Your task to perform on an android device: Go to eBay Image 0: 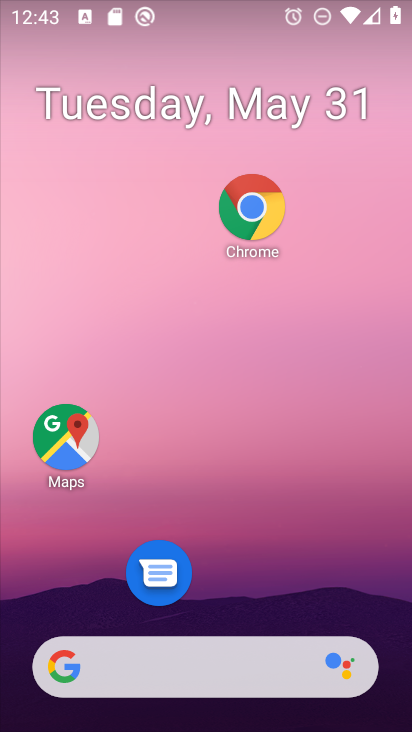
Step 0: drag from (199, 538) to (198, 0)
Your task to perform on an android device: Go to eBay Image 1: 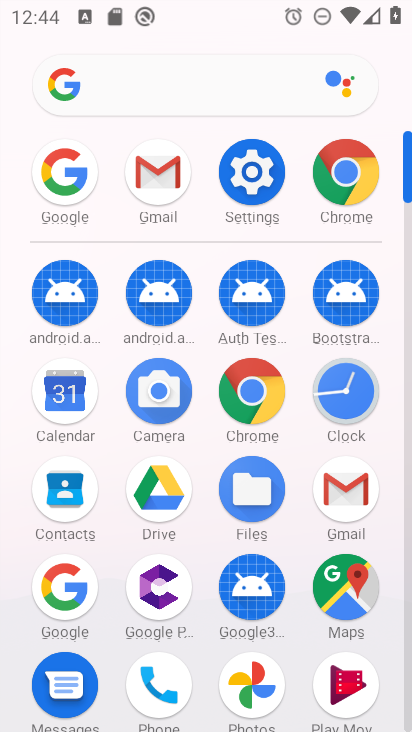
Step 1: click (264, 383)
Your task to perform on an android device: Go to eBay Image 2: 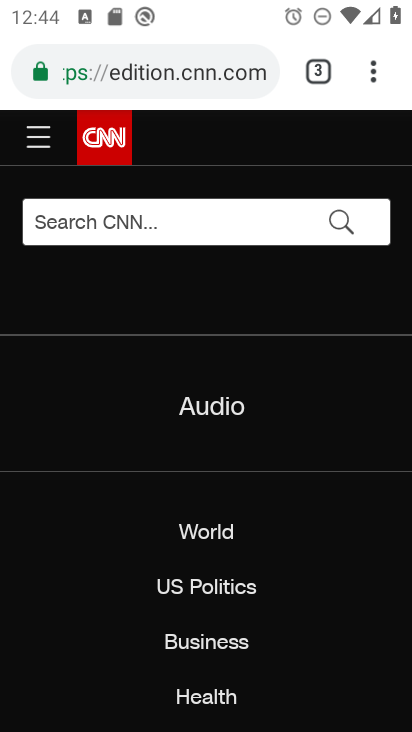
Step 2: click (201, 94)
Your task to perform on an android device: Go to eBay Image 3: 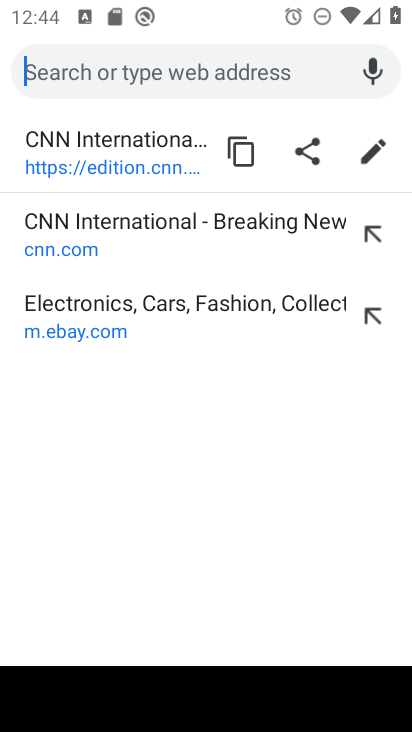
Step 3: type "ebay"
Your task to perform on an android device: Go to eBay Image 4: 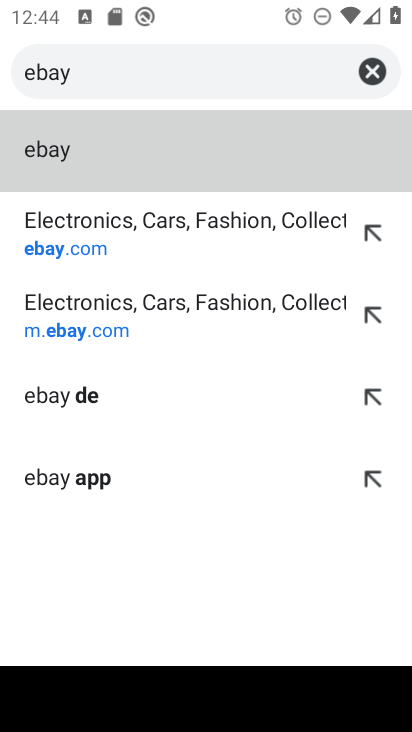
Step 4: click (188, 254)
Your task to perform on an android device: Go to eBay Image 5: 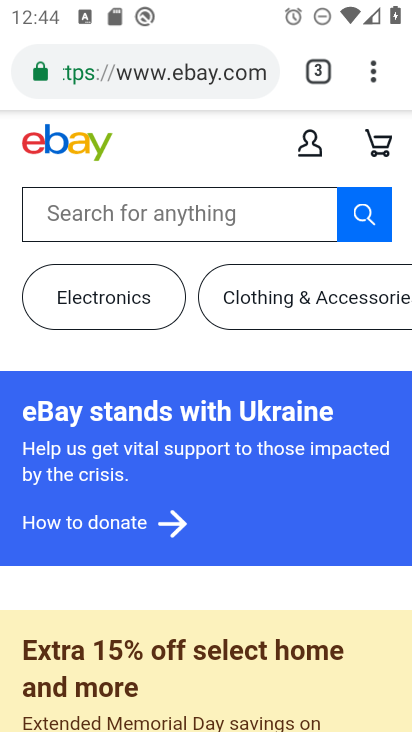
Step 5: task complete